Your task to perform on an android device: toggle notification dots Image 0: 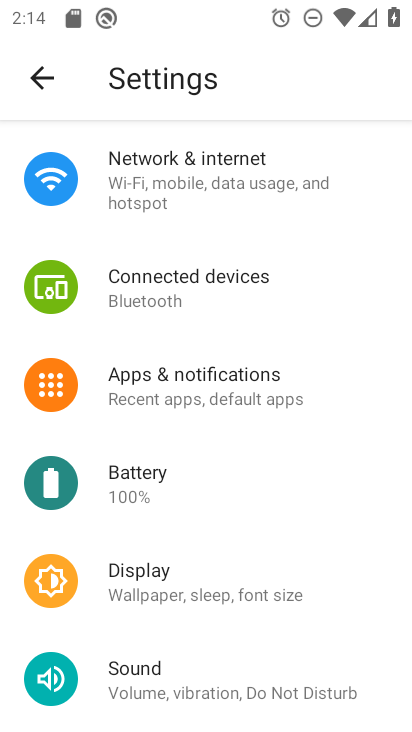
Step 0: press home button
Your task to perform on an android device: toggle notification dots Image 1: 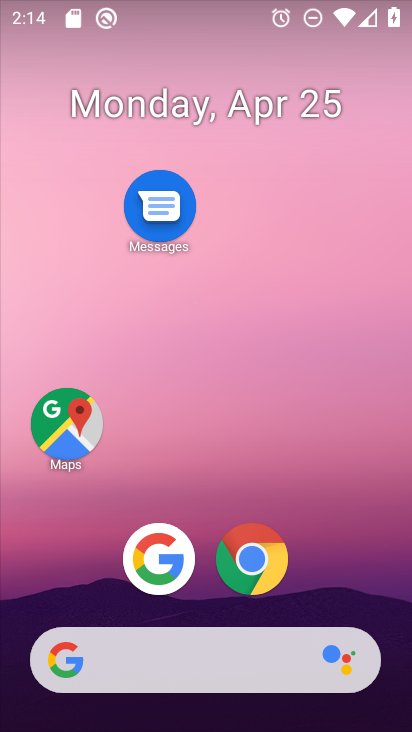
Step 1: drag from (60, 519) to (105, 147)
Your task to perform on an android device: toggle notification dots Image 2: 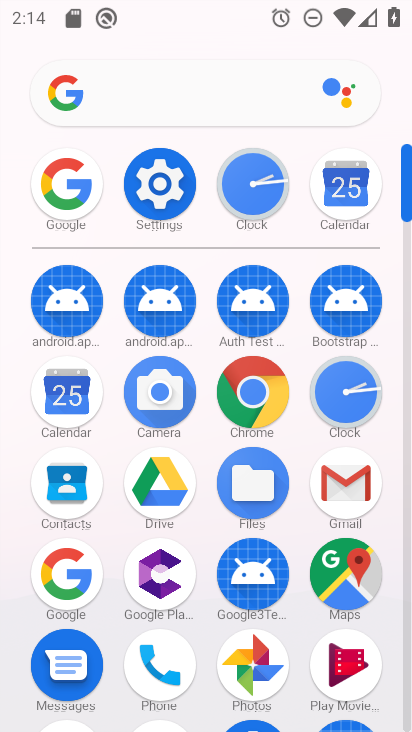
Step 2: click (157, 179)
Your task to perform on an android device: toggle notification dots Image 3: 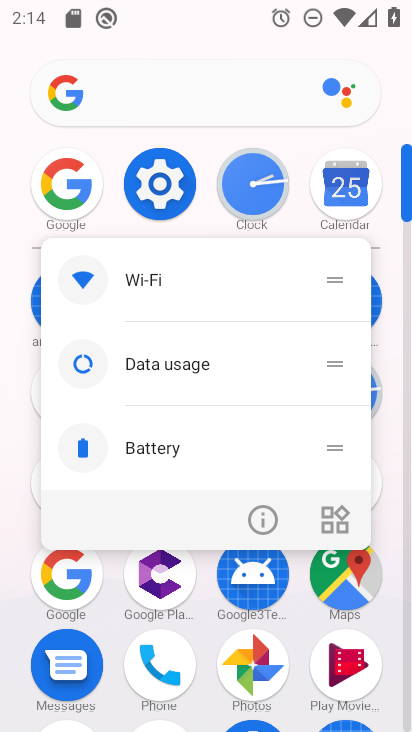
Step 3: click (161, 180)
Your task to perform on an android device: toggle notification dots Image 4: 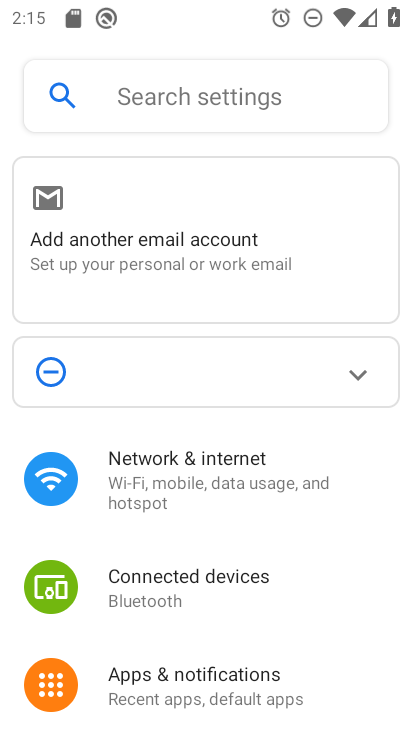
Step 4: drag from (335, 642) to (342, 270)
Your task to perform on an android device: toggle notification dots Image 5: 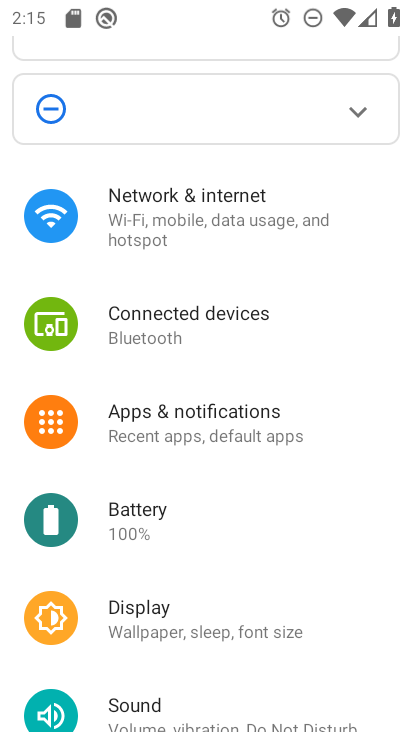
Step 5: drag from (221, 692) to (231, 353)
Your task to perform on an android device: toggle notification dots Image 6: 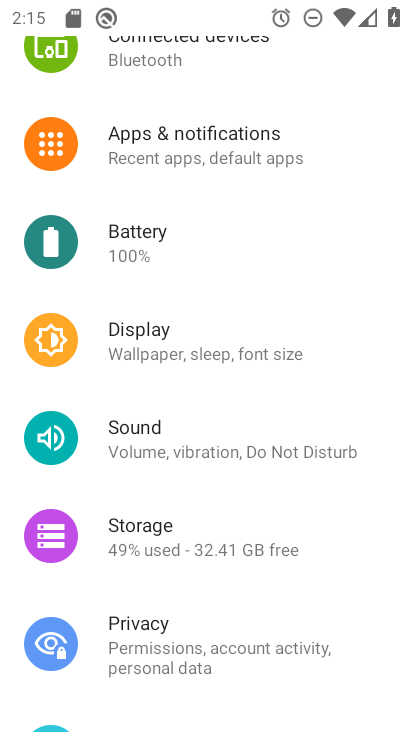
Step 6: drag from (245, 587) to (267, 207)
Your task to perform on an android device: toggle notification dots Image 7: 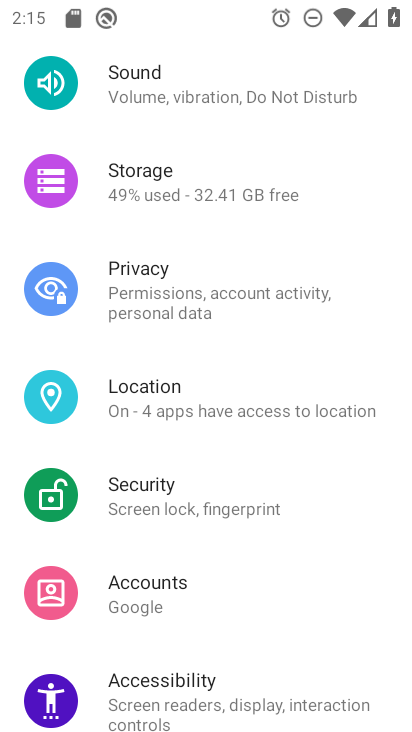
Step 7: drag from (239, 596) to (305, 708)
Your task to perform on an android device: toggle notification dots Image 8: 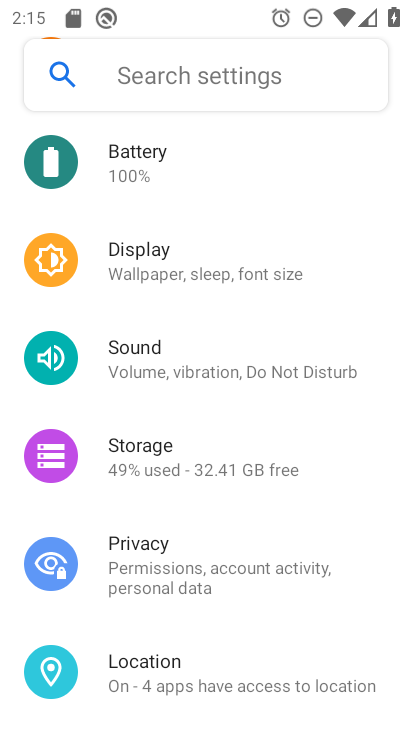
Step 8: drag from (216, 235) to (263, 648)
Your task to perform on an android device: toggle notification dots Image 9: 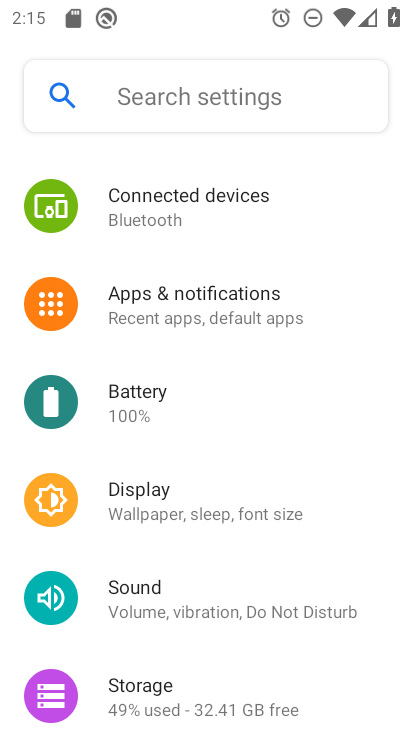
Step 9: click (166, 300)
Your task to perform on an android device: toggle notification dots Image 10: 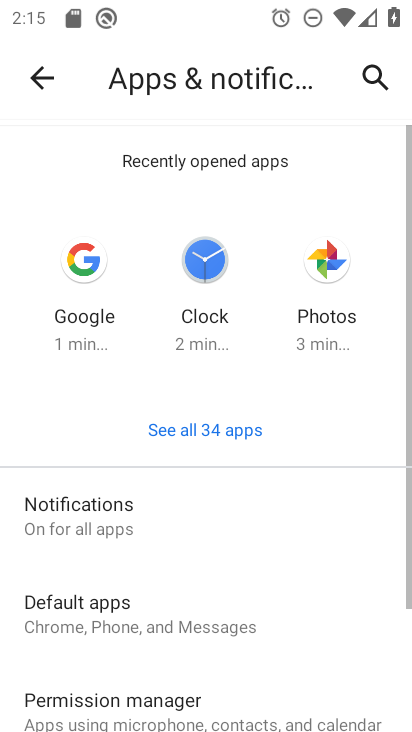
Step 10: click (136, 511)
Your task to perform on an android device: toggle notification dots Image 11: 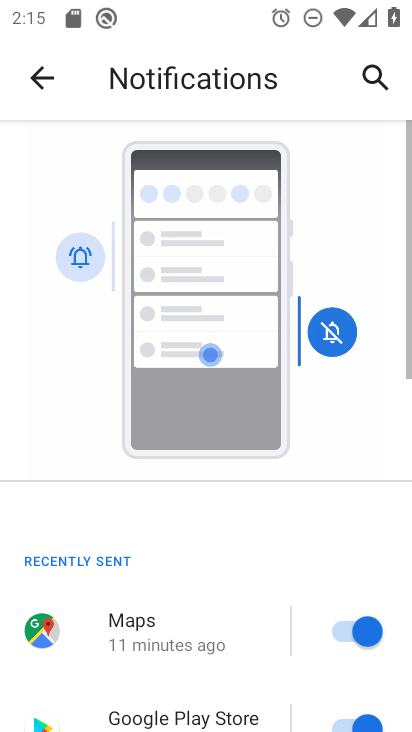
Step 11: drag from (219, 625) to (229, 86)
Your task to perform on an android device: toggle notification dots Image 12: 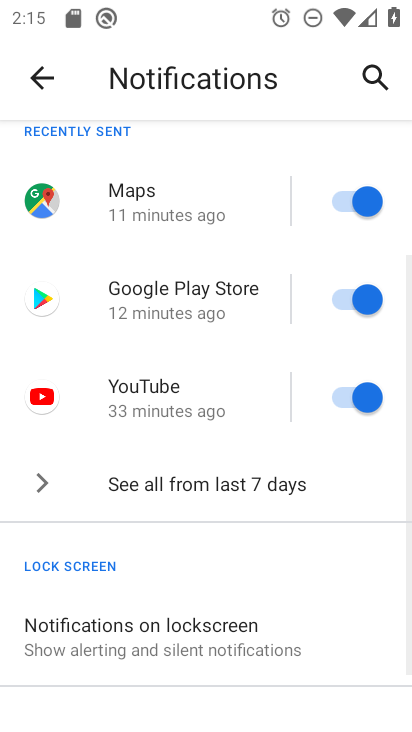
Step 12: drag from (195, 688) to (221, 441)
Your task to perform on an android device: toggle notification dots Image 13: 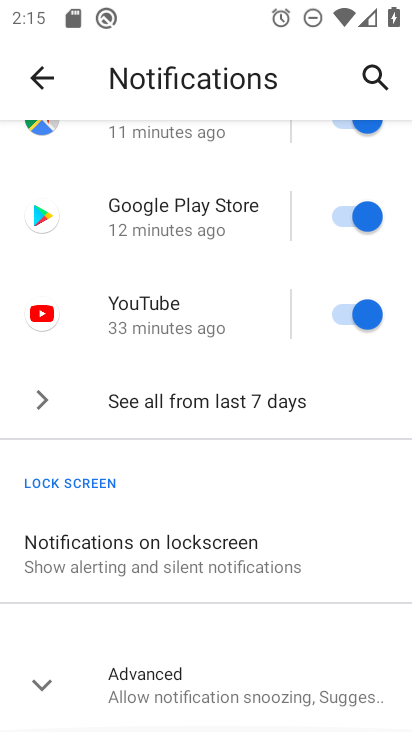
Step 13: click (137, 713)
Your task to perform on an android device: toggle notification dots Image 14: 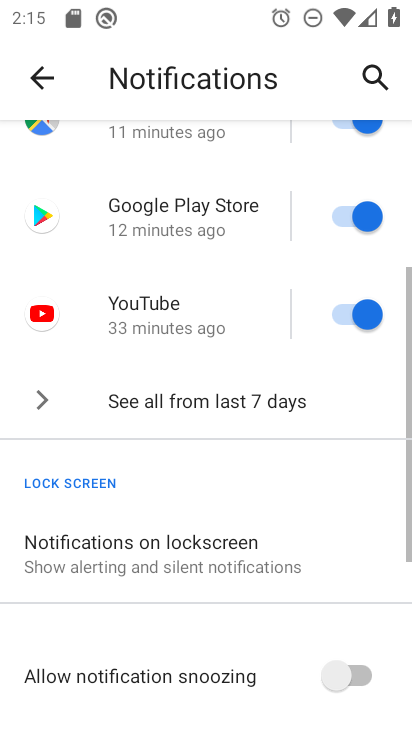
Step 14: drag from (219, 602) to (224, 313)
Your task to perform on an android device: toggle notification dots Image 15: 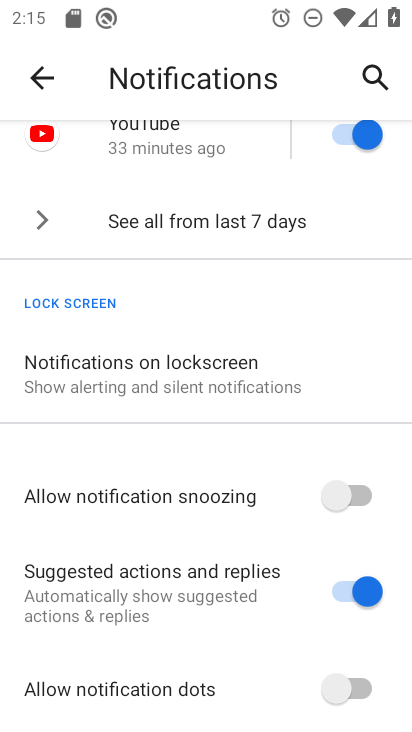
Step 15: drag from (234, 570) to (245, 349)
Your task to perform on an android device: toggle notification dots Image 16: 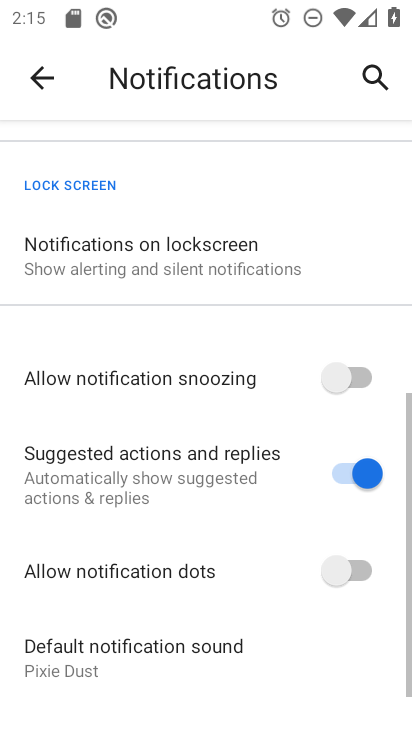
Step 16: click (337, 585)
Your task to perform on an android device: toggle notification dots Image 17: 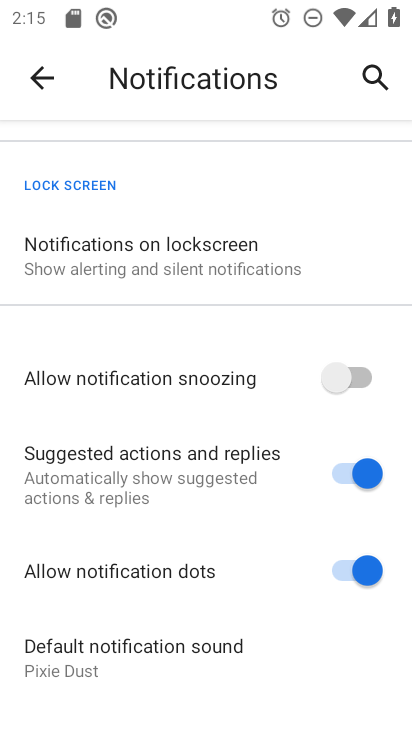
Step 17: task complete